Your task to perform on an android device: turn on the 24-hour format for clock Image 0: 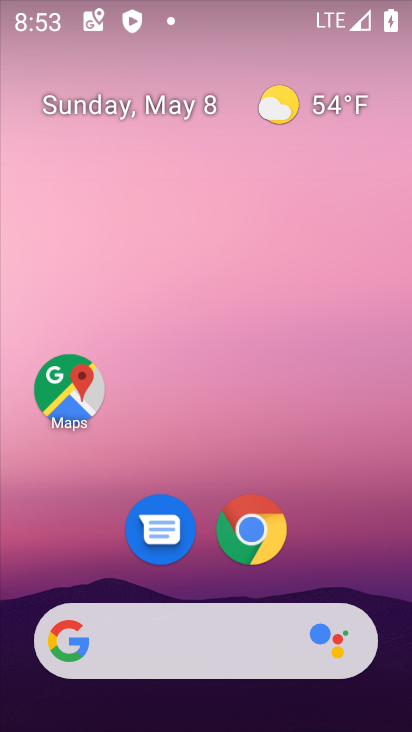
Step 0: drag from (360, 564) to (361, 133)
Your task to perform on an android device: turn on the 24-hour format for clock Image 1: 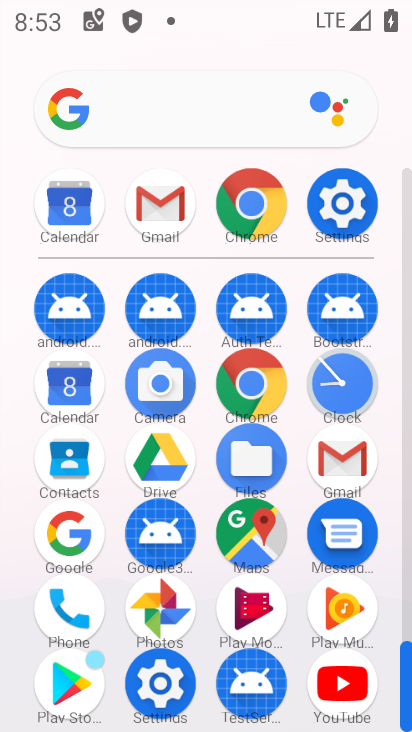
Step 1: click (335, 391)
Your task to perform on an android device: turn on the 24-hour format for clock Image 2: 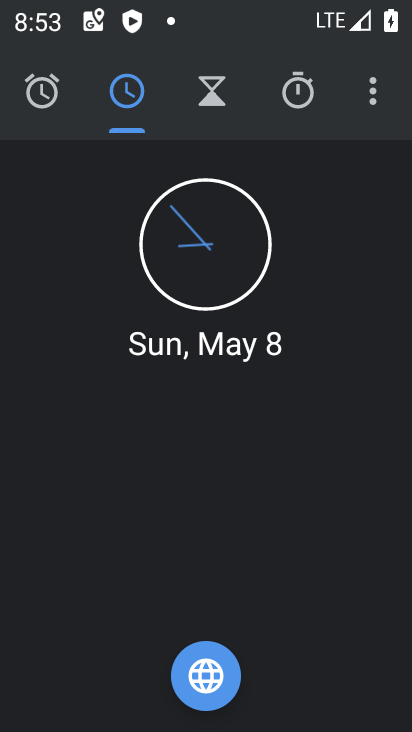
Step 2: click (377, 106)
Your task to perform on an android device: turn on the 24-hour format for clock Image 3: 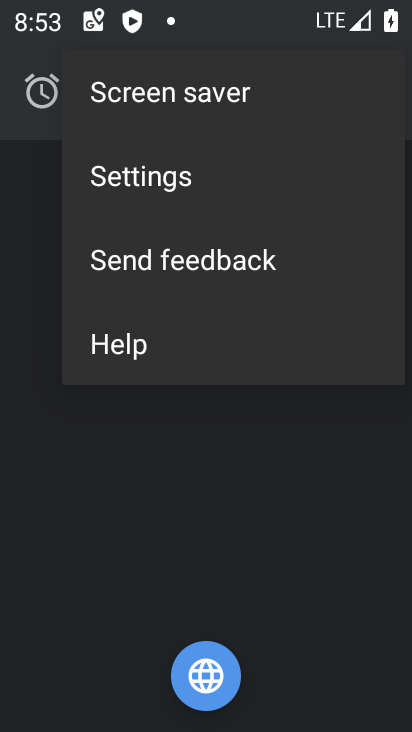
Step 3: click (204, 178)
Your task to perform on an android device: turn on the 24-hour format for clock Image 4: 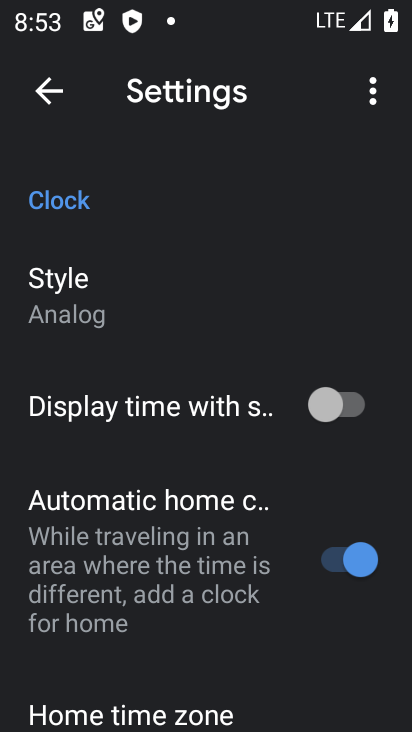
Step 4: drag from (214, 683) to (212, 349)
Your task to perform on an android device: turn on the 24-hour format for clock Image 5: 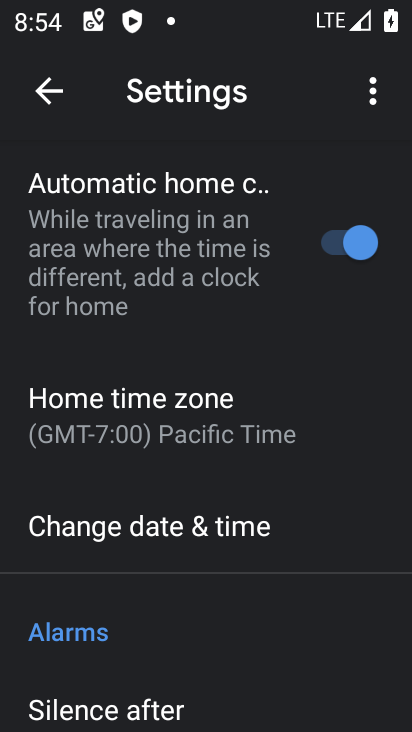
Step 5: click (225, 539)
Your task to perform on an android device: turn on the 24-hour format for clock Image 6: 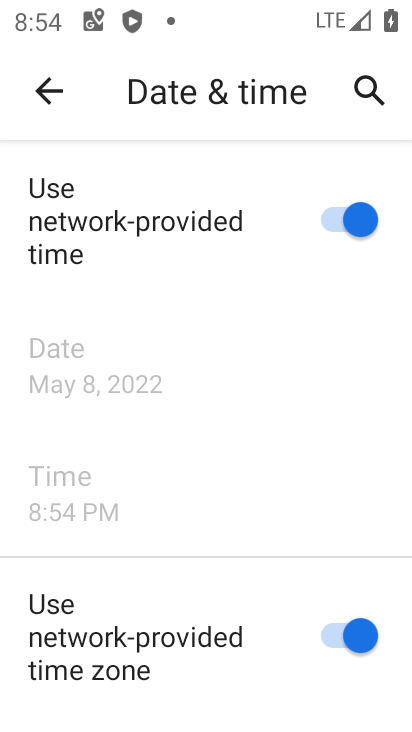
Step 6: drag from (243, 662) to (234, 339)
Your task to perform on an android device: turn on the 24-hour format for clock Image 7: 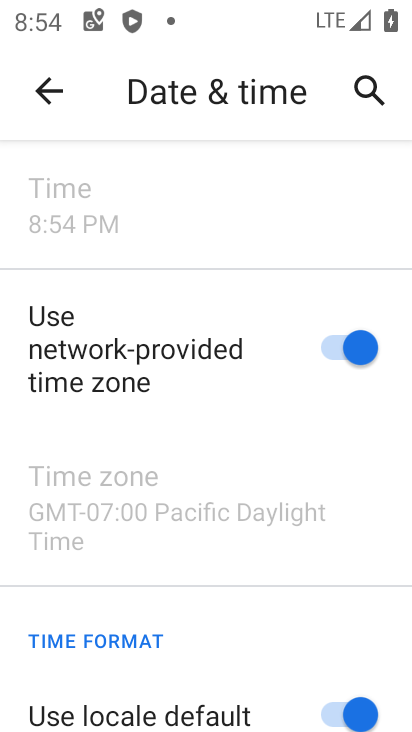
Step 7: drag from (263, 646) to (272, 365)
Your task to perform on an android device: turn on the 24-hour format for clock Image 8: 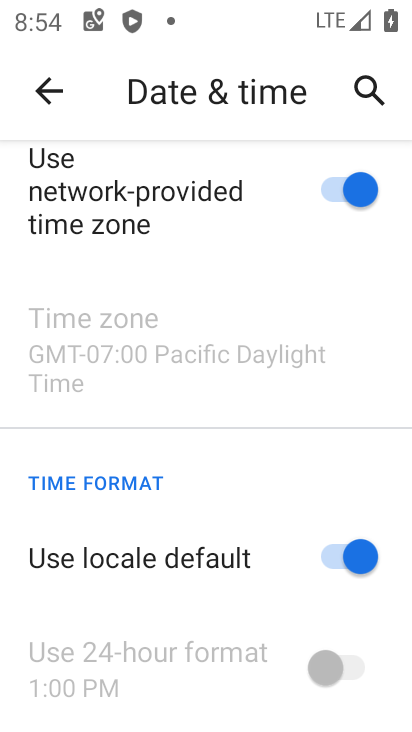
Step 8: click (329, 559)
Your task to perform on an android device: turn on the 24-hour format for clock Image 9: 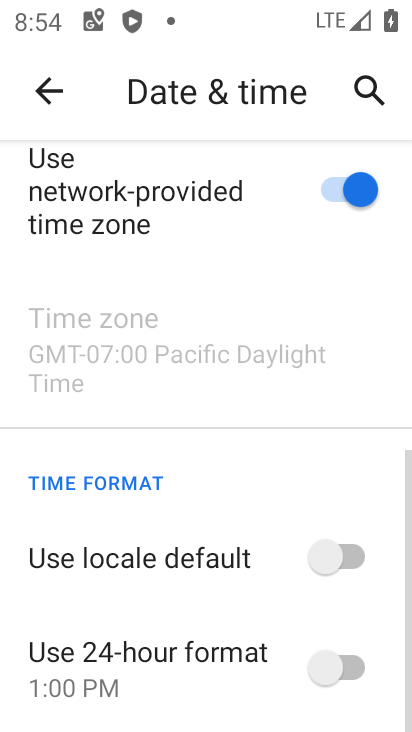
Step 9: click (351, 670)
Your task to perform on an android device: turn on the 24-hour format for clock Image 10: 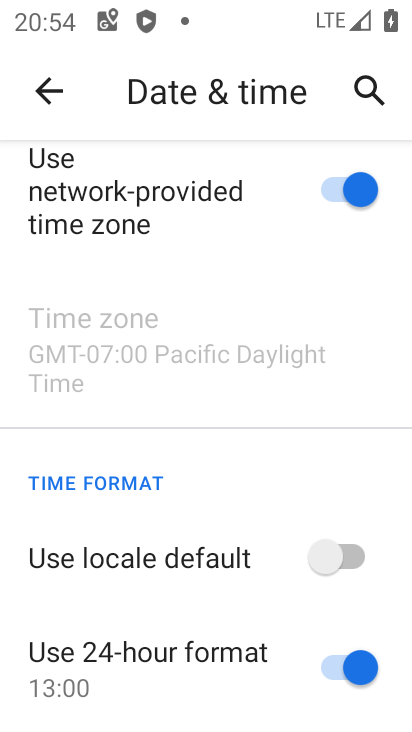
Step 10: task complete